Your task to perform on an android device: turn off wifi Image 0: 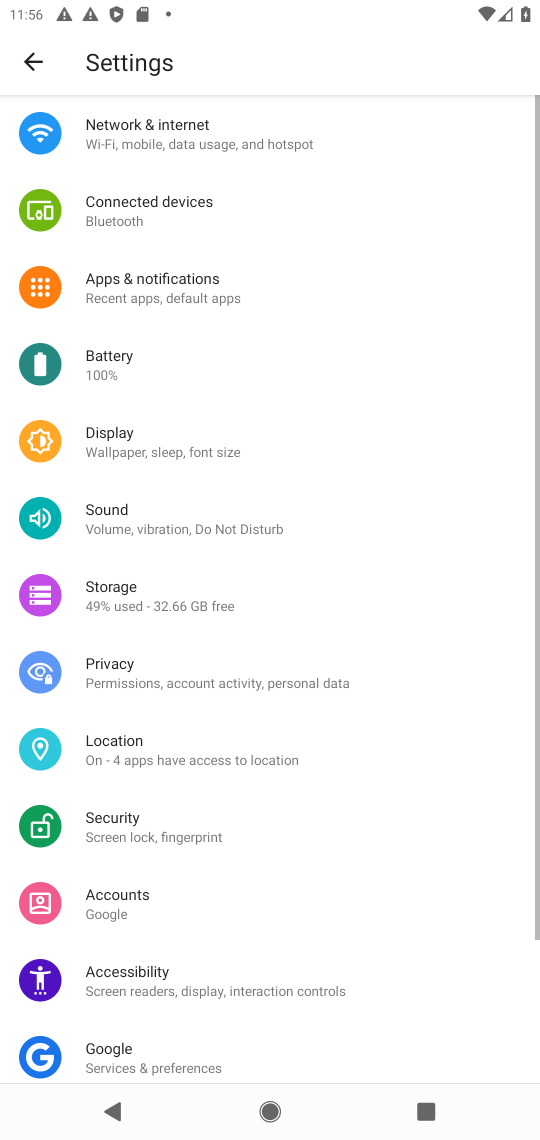
Step 0: click (218, 140)
Your task to perform on an android device: turn off wifi Image 1: 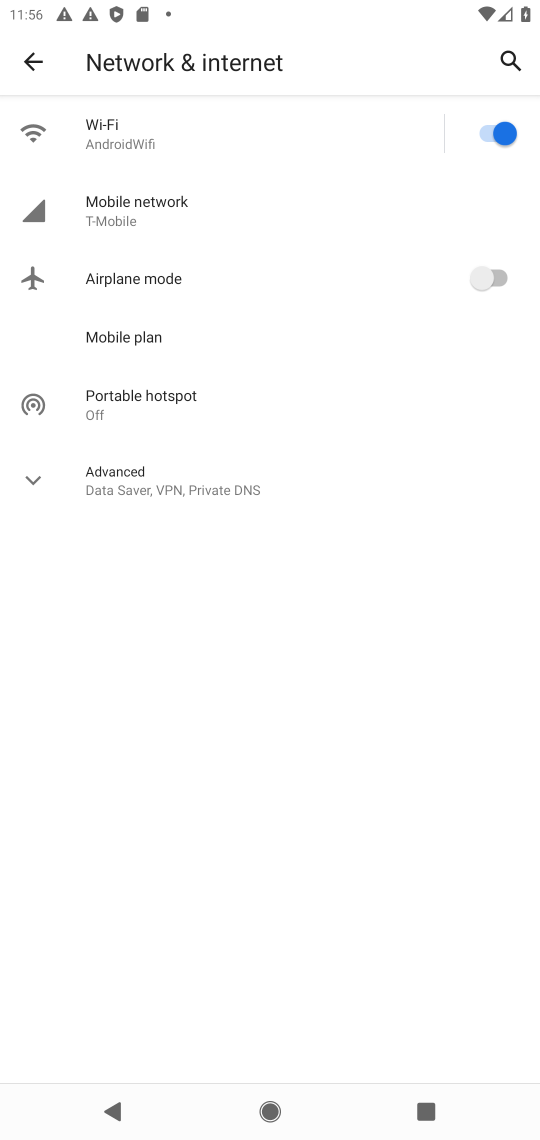
Step 1: click (467, 115)
Your task to perform on an android device: turn off wifi Image 2: 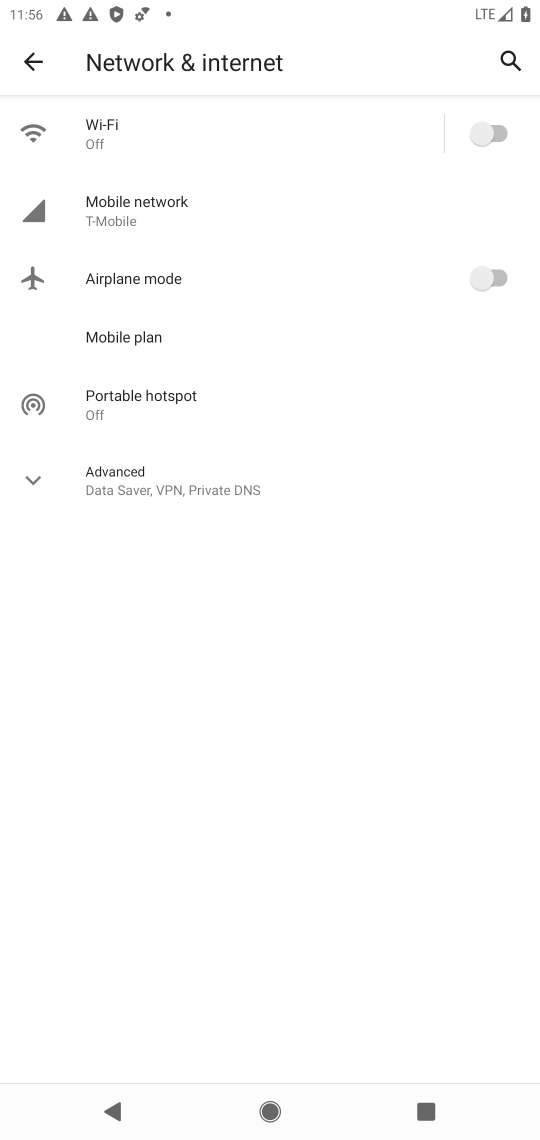
Step 2: task complete